Your task to perform on an android device: set an alarm Image 0: 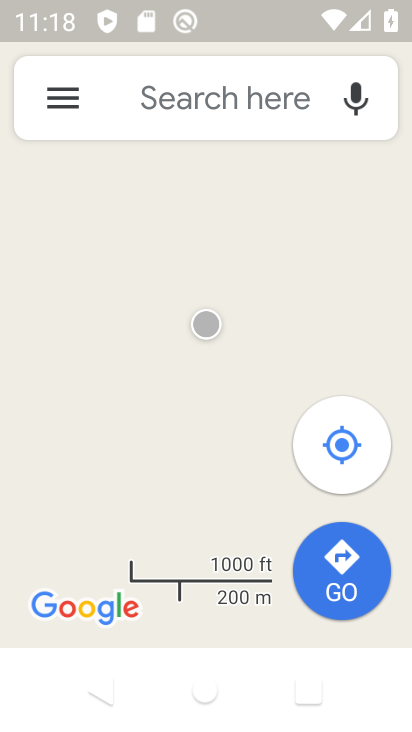
Step 0: press home button
Your task to perform on an android device: set an alarm Image 1: 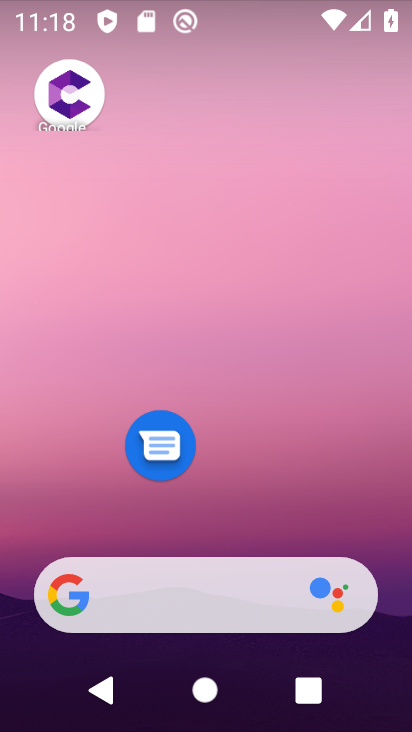
Step 1: drag from (164, 599) to (298, 54)
Your task to perform on an android device: set an alarm Image 2: 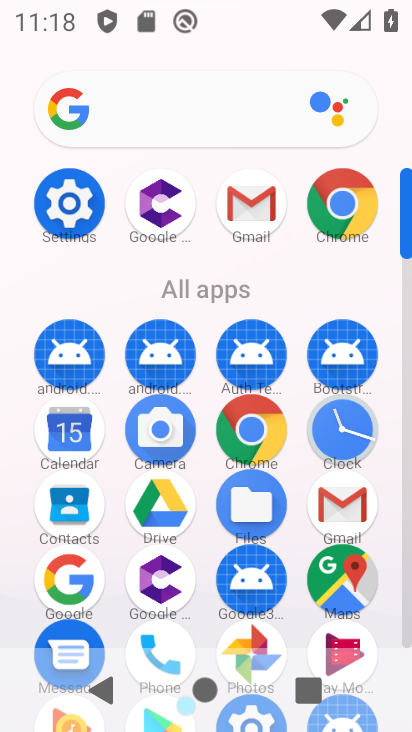
Step 2: click (348, 444)
Your task to perform on an android device: set an alarm Image 3: 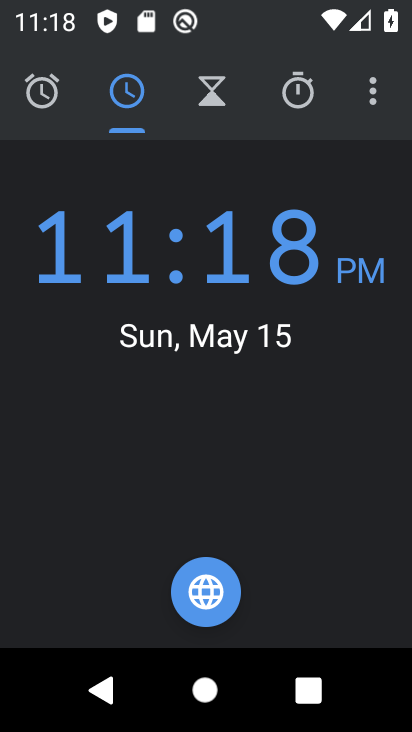
Step 3: click (38, 94)
Your task to perform on an android device: set an alarm Image 4: 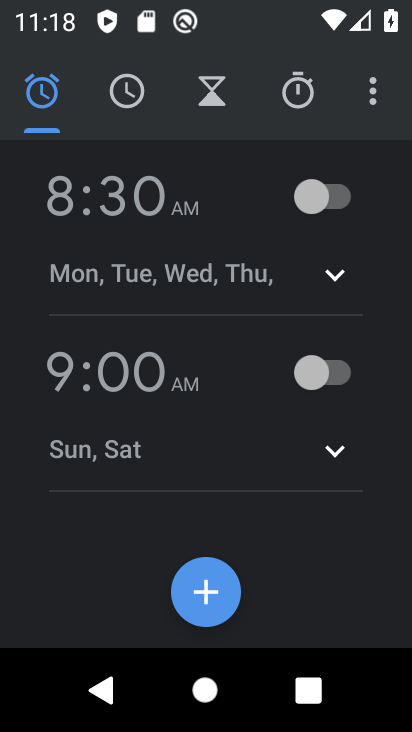
Step 4: click (100, 201)
Your task to perform on an android device: set an alarm Image 5: 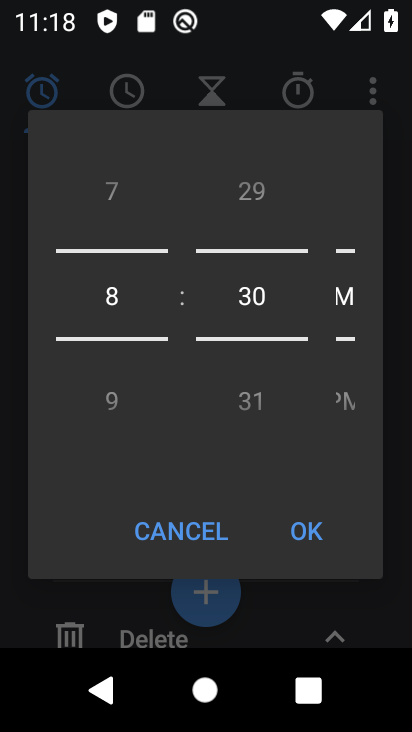
Step 5: click (320, 525)
Your task to perform on an android device: set an alarm Image 6: 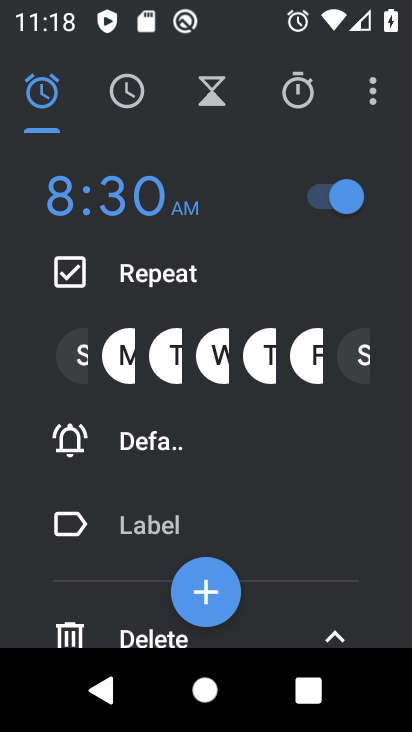
Step 6: task complete